Your task to perform on an android device: open the mobile data screen to see how much data has been used Image 0: 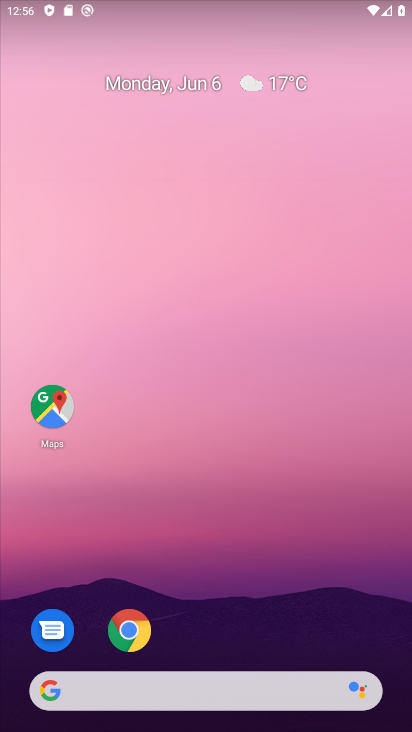
Step 0: drag from (223, 644) to (153, 319)
Your task to perform on an android device: open the mobile data screen to see how much data has been used Image 1: 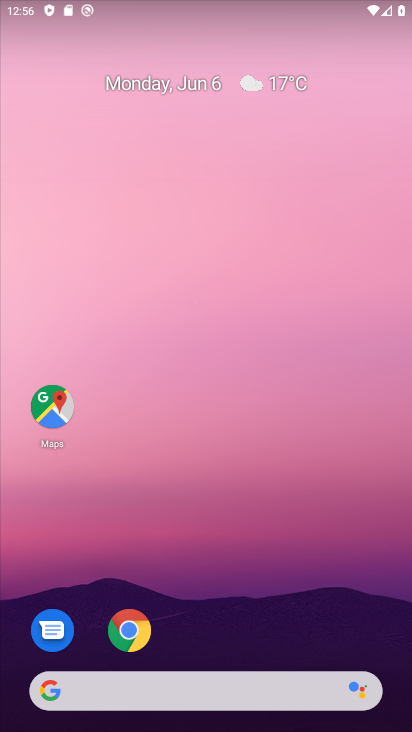
Step 1: drag from (175, 588) to (119, 323)
Your task to perform on an android device: open the mobile data screen to see how much data has been used Image 2: 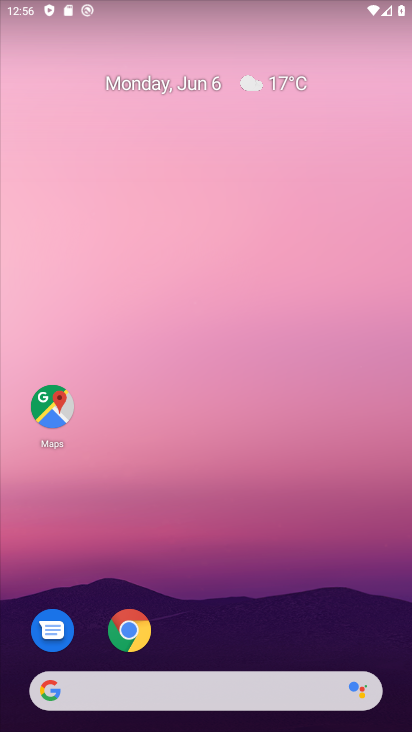
Step 2: click (146, 147)
Your task to perform on an android device: open the mobile data screen to see how much data has been used Image 3: 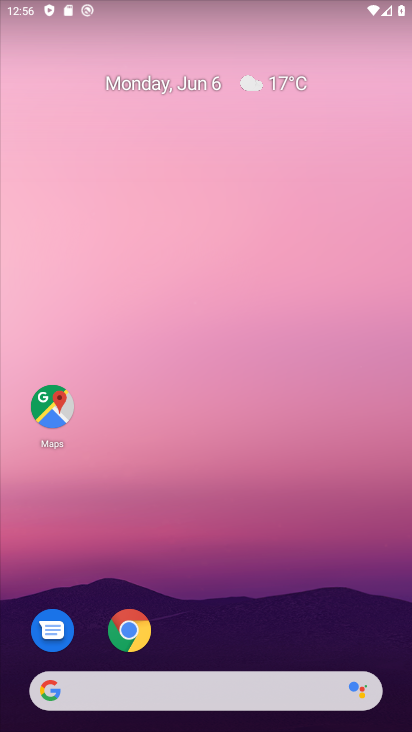
Step 3: drag from (277, 546) to (158, 127)
Your task to perform on an android device: open the mobile data screen to see how much data has been used Image 4: 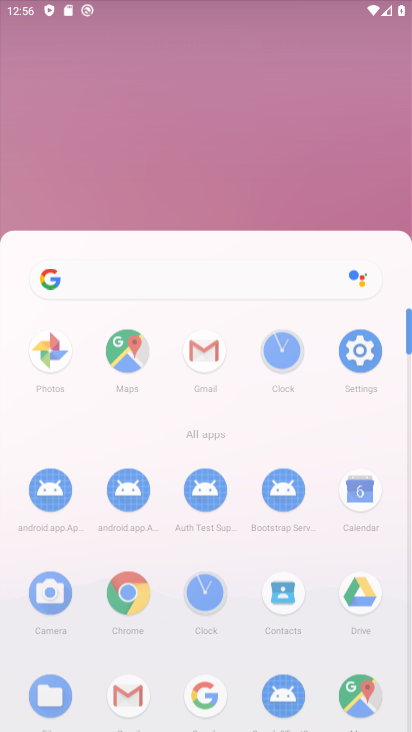
Step 4: drag from (300, 708) to (216, 168)
Your task to perform on an android device: open the mobile data screen to see how much data has been used Image 5: 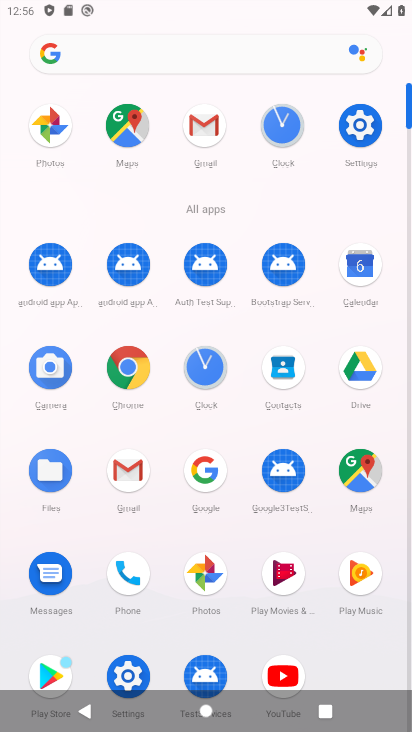
Step 5: drag from (217, 396) to (163, 69)
Your task to perform on an android device: open the mobile data screen to see how much data has been used Image 6: 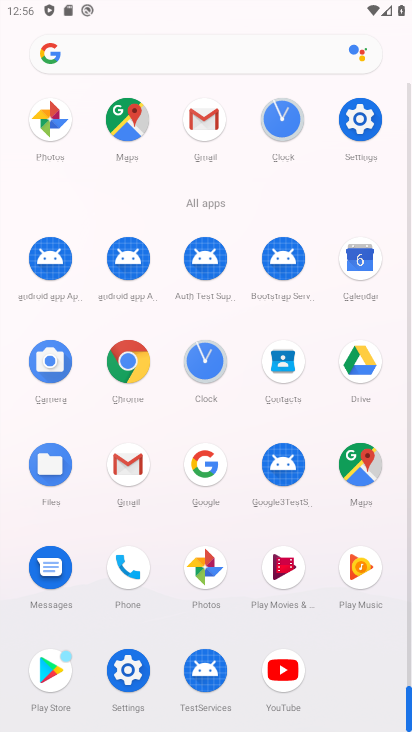
Step 6: click (367, 134)
Your task to perform on an android device: open the mobile data screen to see how much data has been used Image 7: 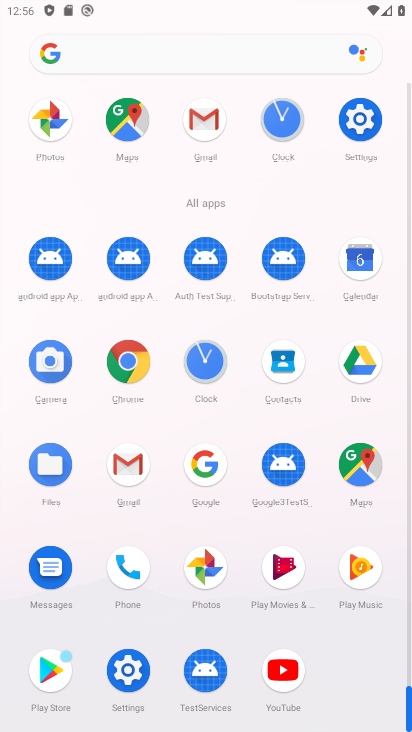
Step 7: click (367, 134)
Your task to perform on an android device: open the mobile data screen to see how much data has been used Image 8: 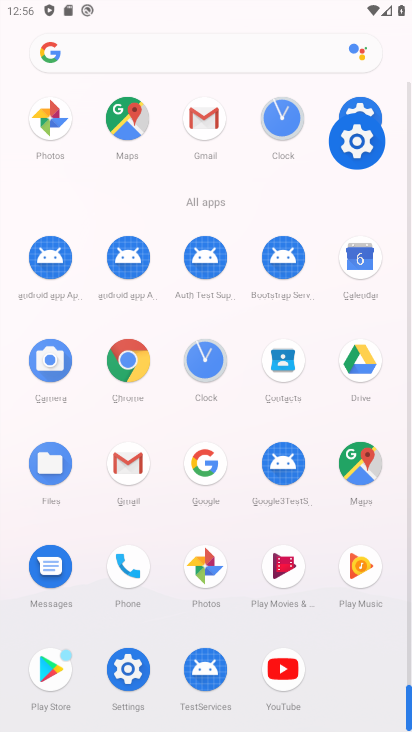
Step 8: click (367, 134)
Your task to perform on an android device: open the mobile data screen to see how much data has been used Image 9: 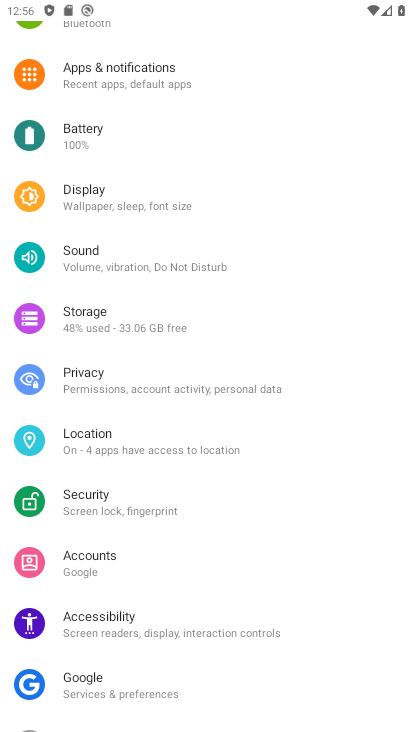
Step 9: drag from (108, 140) to (99, 432)
Your task to perform on an android device: open the mobile data screen to see how much data has been used Image 10: 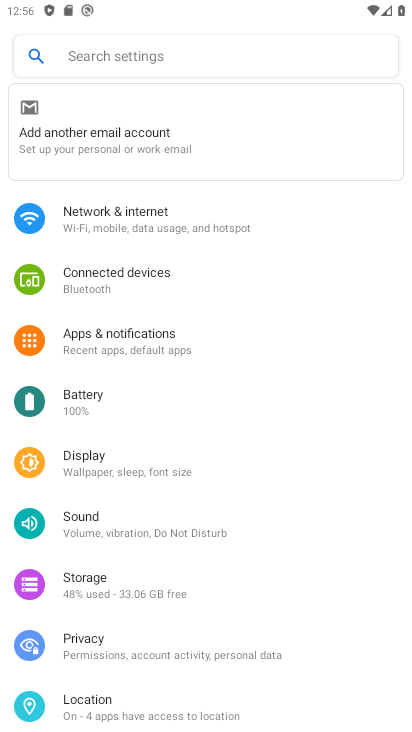
Step 10: drag from (139, 202) to (165, 410)
Your task to perform on an android device: open the mobile data screen to see how much data has been used Image 11: 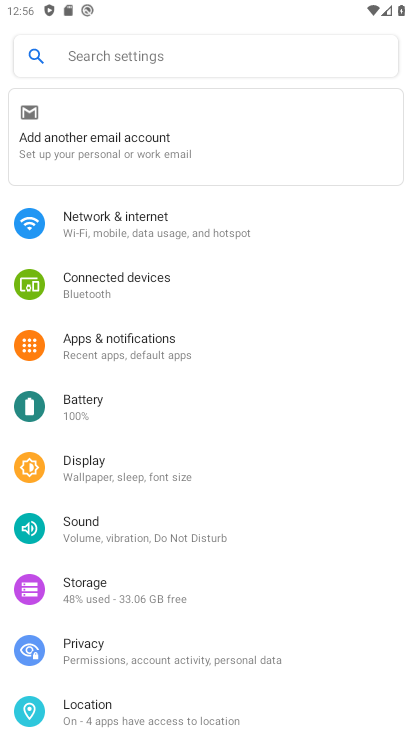
Step 11: click (135, 217)
Your task to perform on an android device: open the mobile data screen to see how much data has been used Image 12: 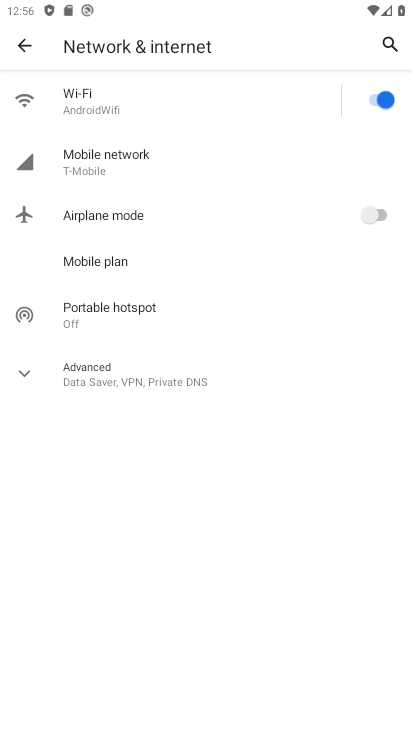
Step 12: click (114, 168)
Your task to perform on an android device: open the mobile data screen to see how much data has been used Image 13: 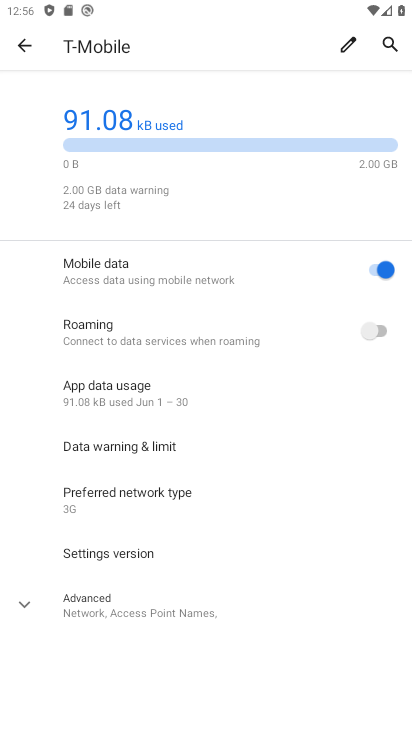
Step 13: task complete